Your task to perform on an android device: Open Youtube and go to "Your channel" Image 0: 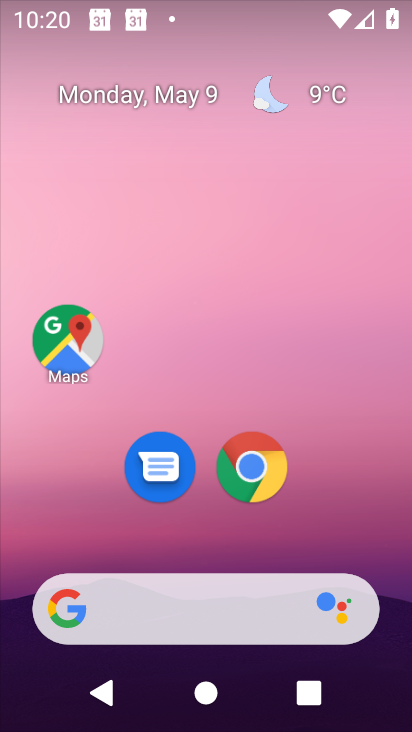
Step 0: drag from (384, 543) to (389, 22)
Your task to perform on an android device: Open Youtube and go to "Your channel" Image 1: 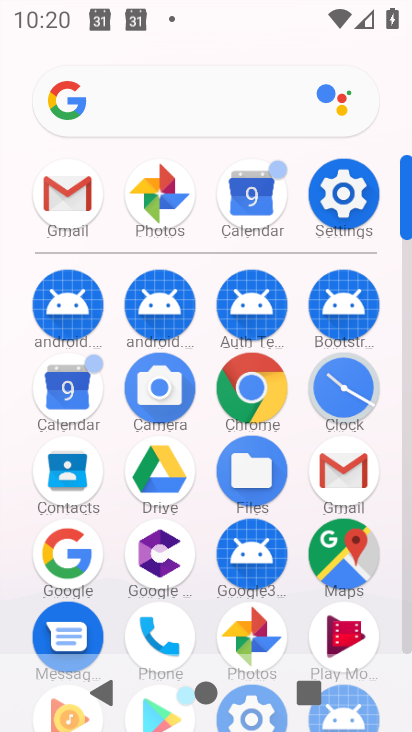
Step 1: click (406, 482)
Your task to perform on an android device: Open Youtube and go to "Your channel" Image 2: 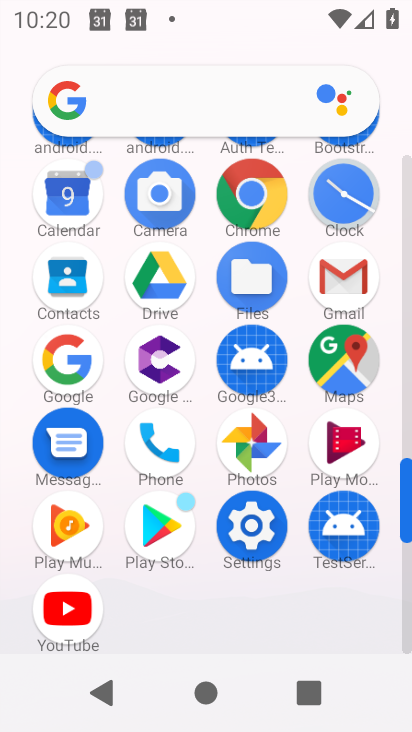
Step 2: click (88, 615)
Your task to perform on an android device: Open Youtube and go to "Your channel" Image 3: 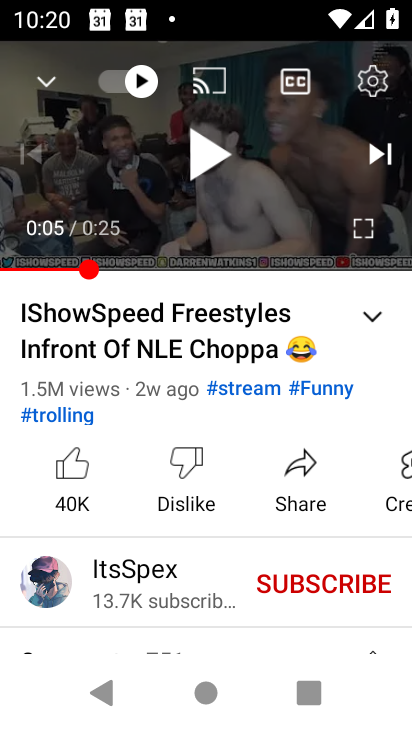
Step 3: click (47, 88)
Your task to perform on an android device: Open Youtube and go to "Your channel" Image 4: 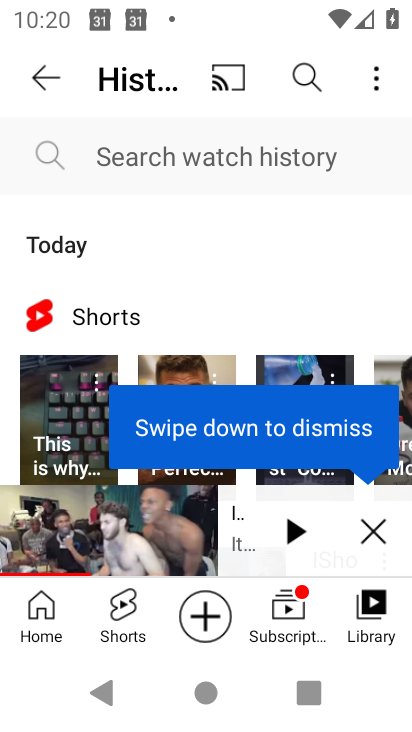
Step 4: click (47, 88)
Your task to perform on an android device: Open Youtube and go to "Your channel" Image 5: 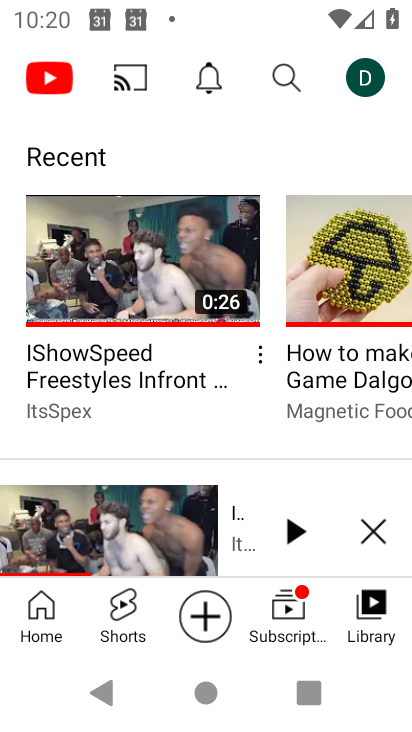
Step 5: click (367, 76)
Your task to perform on an android device: Open Youtube and go to "Your channel" Image 6: 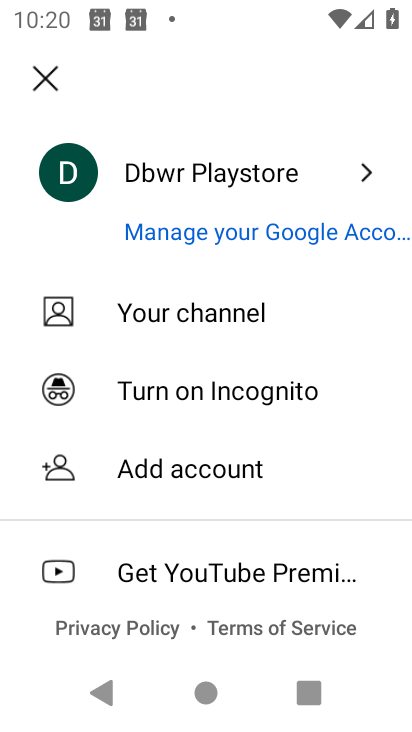
Step 6: click (211, 333)
Your task to perform on an android device: Open Youtube and go to "Your channel" Image 7: 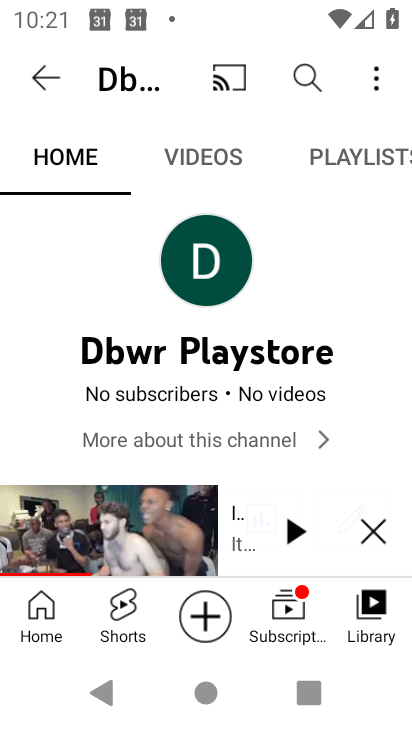
Step 7: task complete